Your task to perform on an android device: Is it going to rain today? Image 0: 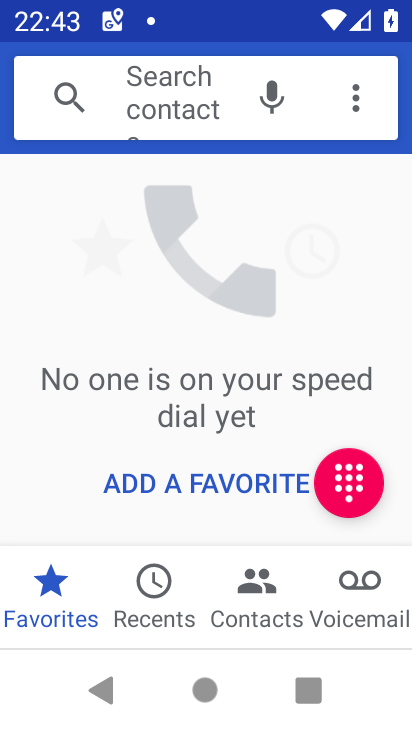
Step 0: press home button
Your task to perform on an android device: Is it going to rain today? Image 1: 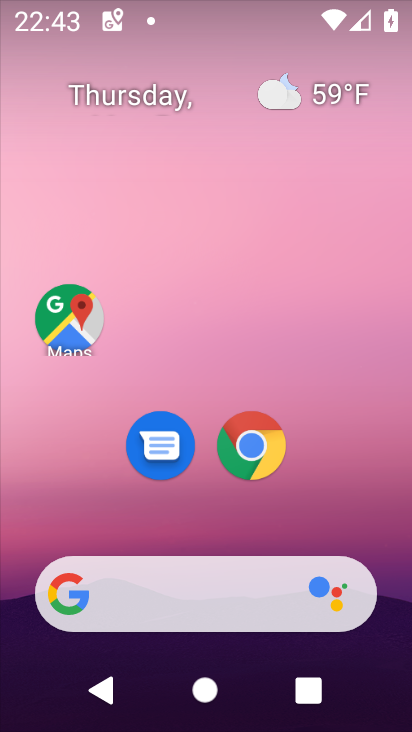
Step 1: click (308, 101)
Your task to perform on an android device: Is it going to rain today? Image 2: 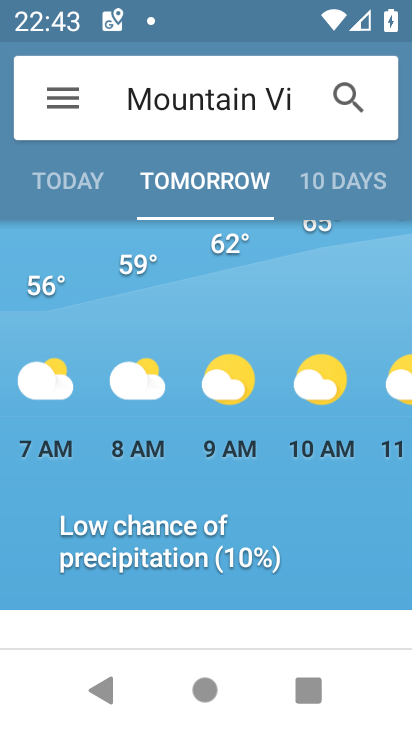
Step 2: click (59, 179)
Your task to perform on an android device: Is it going to rain today? Image 3: 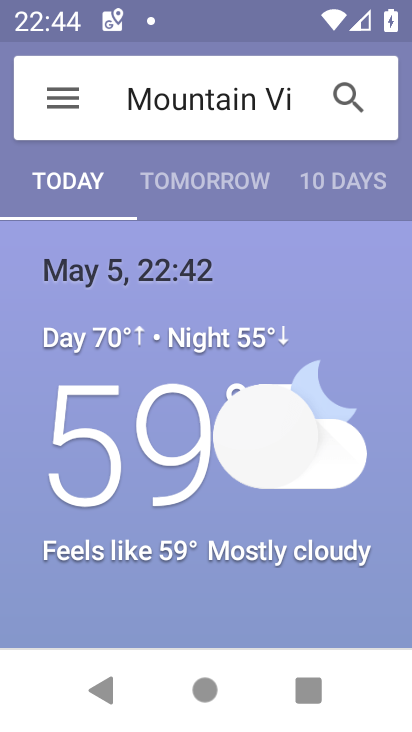
Step 3: task complete